Your task to perform on an android device: turn on showing notifications on the lock screen Image 0: 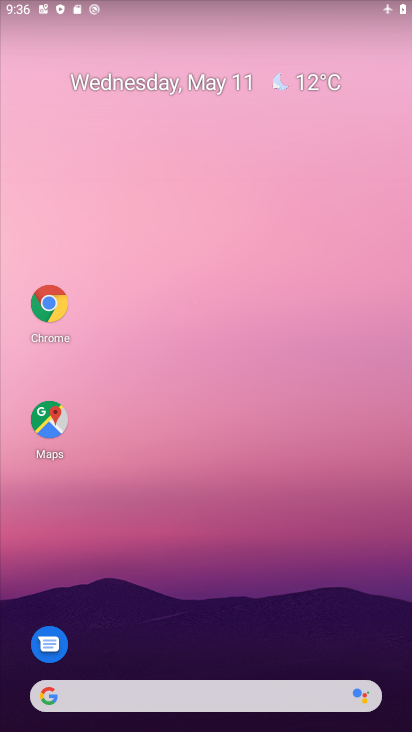
Step 0: press home button
Your task to perform on an android device: turn on showing notifications on the lock screen Image 1: 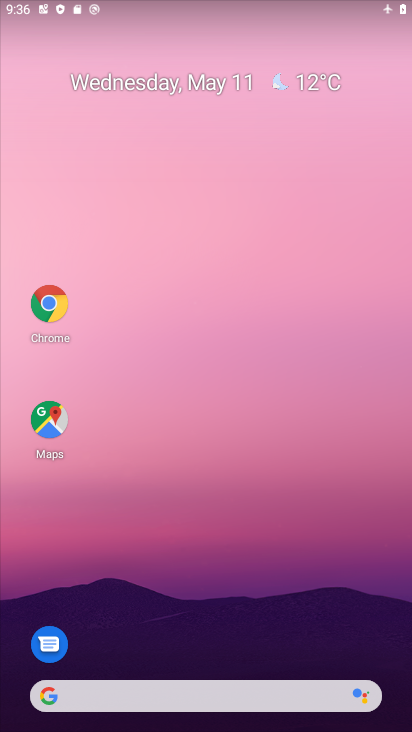
Step 1: drag from (171, 629) to (160, 154)
Your task to perform on an android device: turn on showing notifications on the lock screen Image 2: 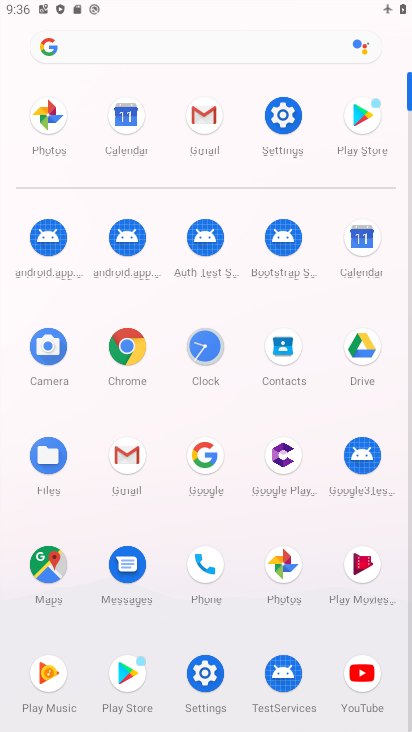
Step 2: click (284, 116)
Your task to perform on an android device: turn on showing notifications on the lock screen Image 3: 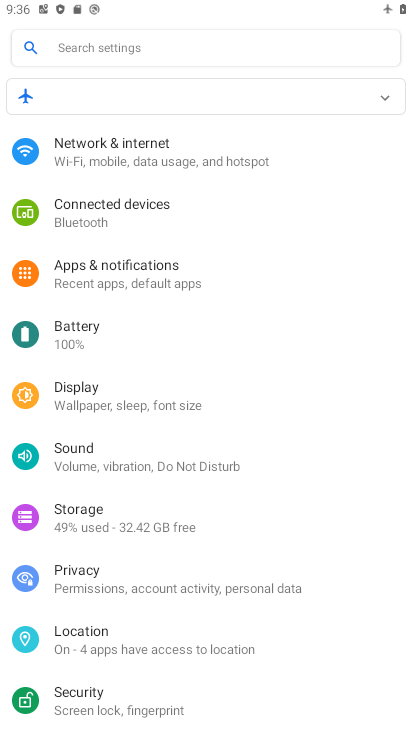
Step 3: click (161, 277)
Your task to perform on an android device: turn on showing notifications on the lock screen Image 4: 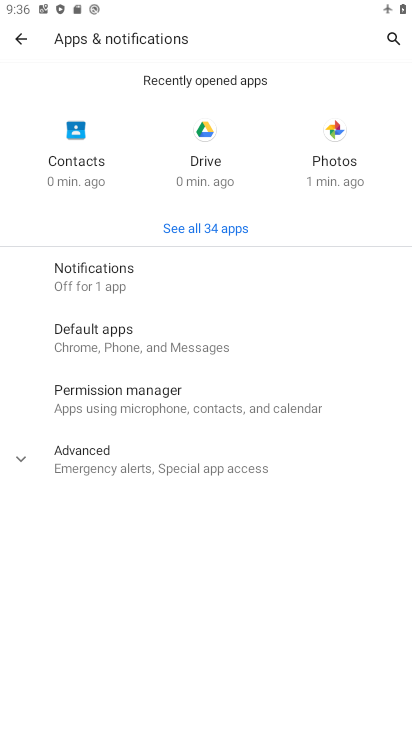
Step 4: click (154, 284)
Your task to perform on an android device: turn on showing notifications on the lock screen Image 5: 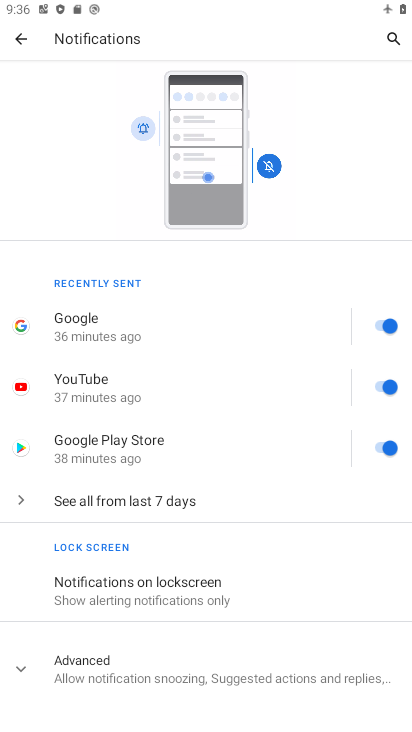
Step 5: click (122, 592)
Your task to perform on an android device: turn on showing notifications on the lock screen Image 6: 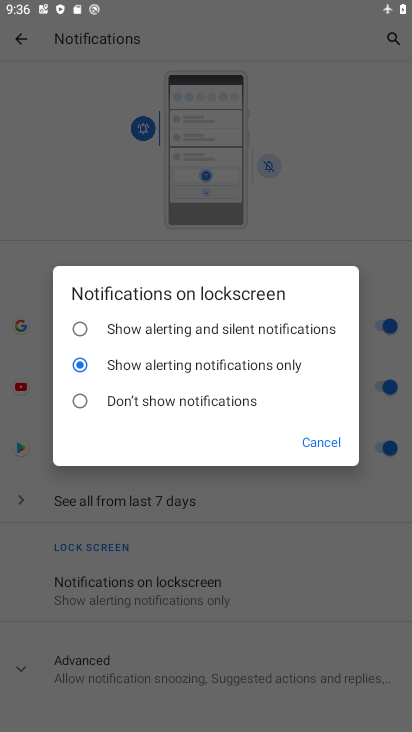
Step 6: click (155, 338)
Your task to perform on an android device: turn on showing notifications on the lock screen Image 7: 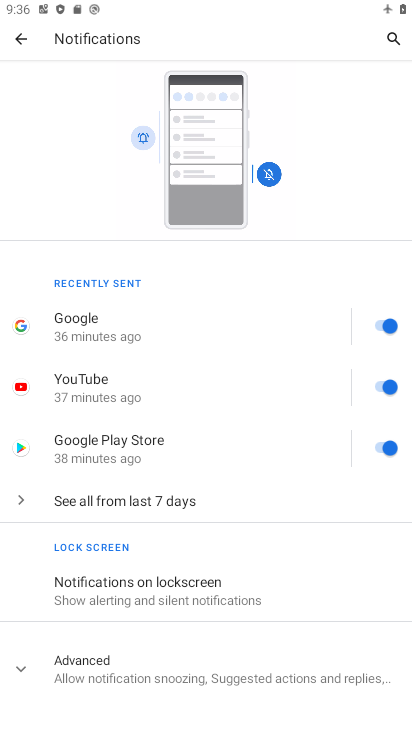
Step 7: task complete